Your task to perform on an android device: Open battery settings Image 0: 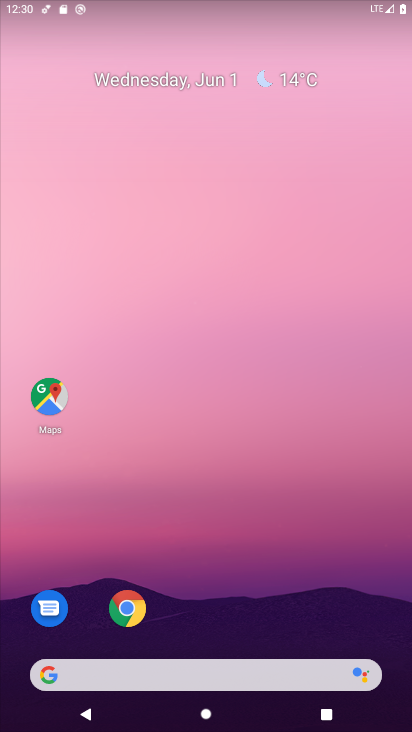
Step 0: drag from (202, 634) to (306, 35)
Your task to perform on an android device: Open battery settings Image 1: 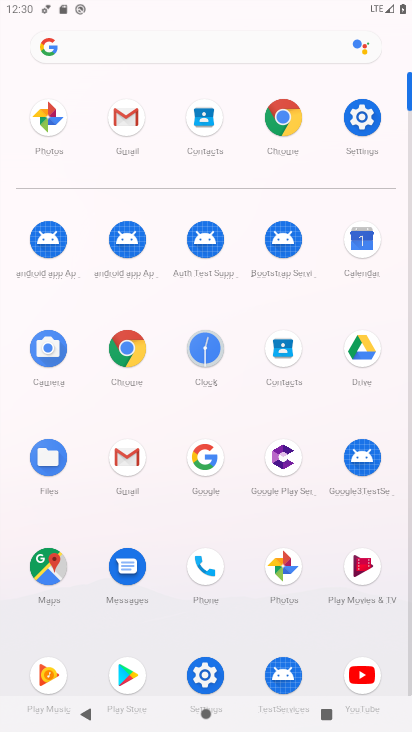
Step 1: click (366, 123)
Your task to perform on an android device: Open battery settings Image 2: 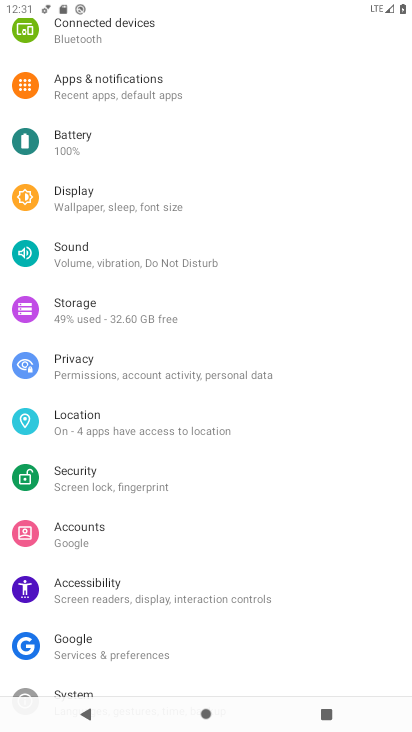
Step 2: click (79, 152)
Your task to perform on an android device: Open battery settings Image 3: 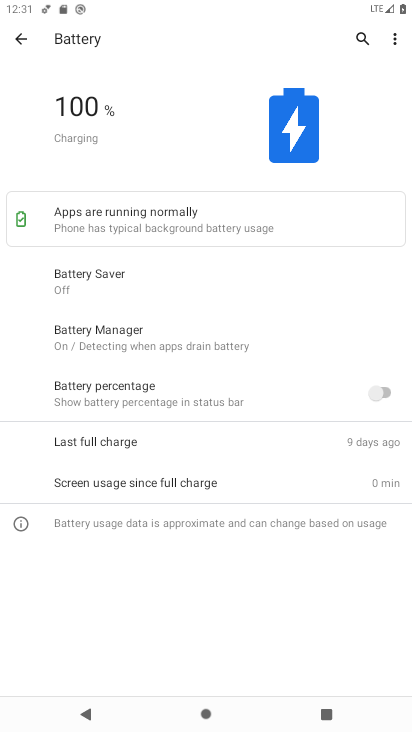
Step 3: task complete